Your task to perform on an android device: choose inbox layout in the gmail app Image 0: 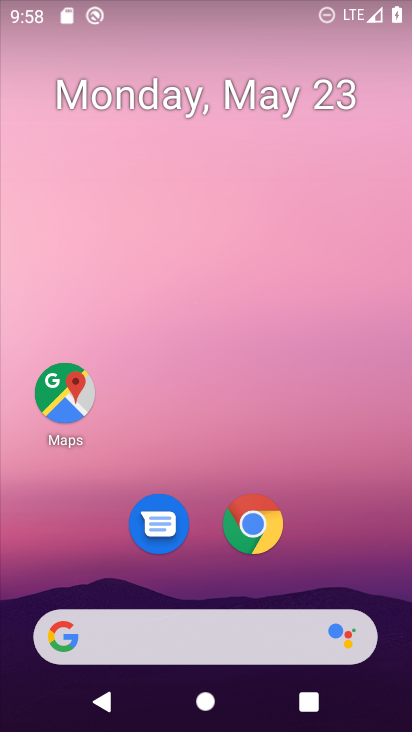
Step 0: drag from (215, 447) to (185, 51)
Your task to perform on an android device: choose inbox layout in the gmail app Image 1: 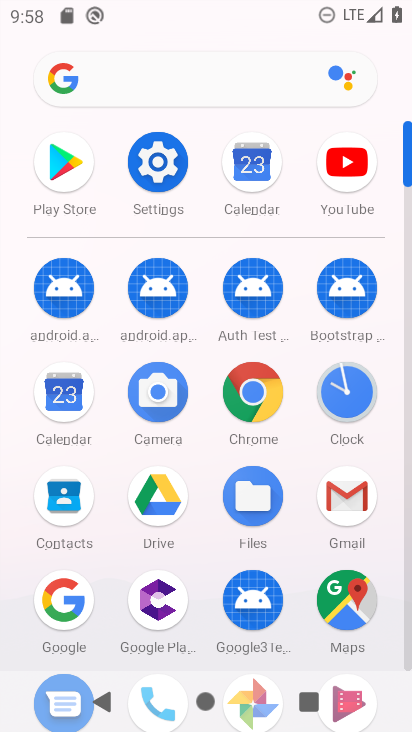
Step 1: click (330, 477)
Your task to perform on an android device: choose inbox layout in the gmail app Image 2: 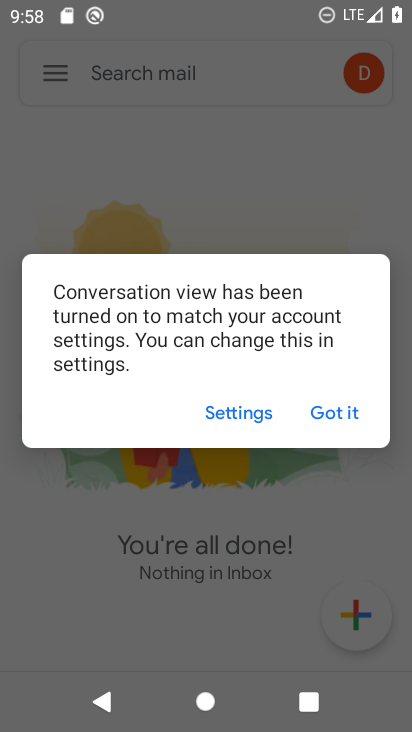
Step 2: click (317, 405)
Your task to perform on an android device: choose inbox layout in the gmail app Image 3: 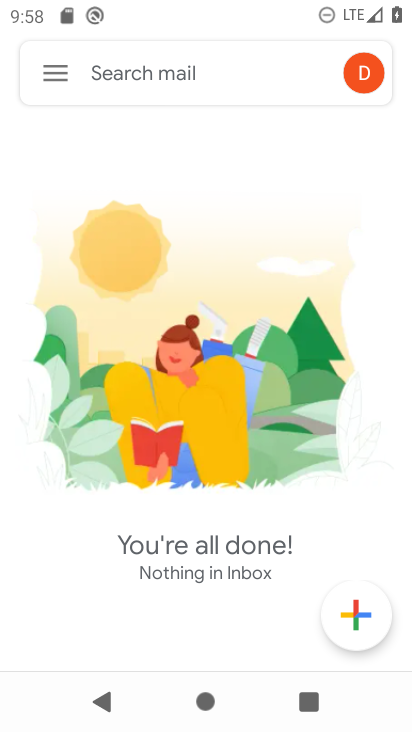
Step 3: click (59, 71)
Your task to perform on an android device: choose inbox layout in the gmail app Image 4: 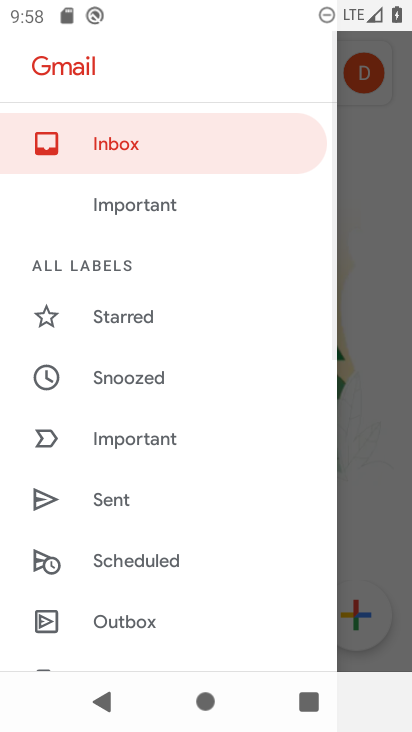
Step 4: drag from (148, 428) to (209, 44)
Your task to perform on an android device: choose inbox layout in the gmail app Image 5: 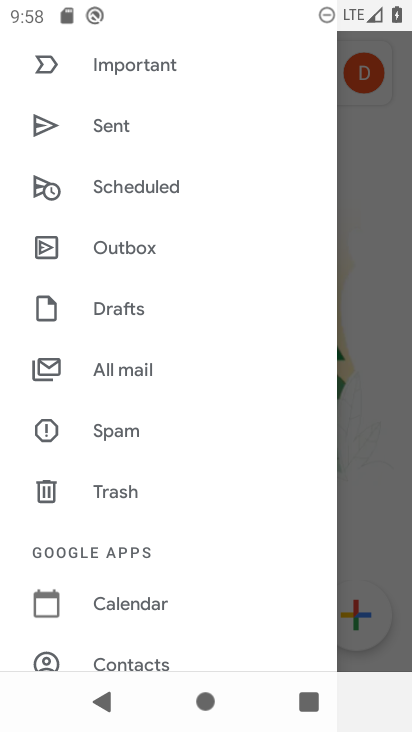
Step 5: drag from (193, 419) to (205, 134)
Your task to perform on an android device: choose inbox layout in the gmail app Image 6: 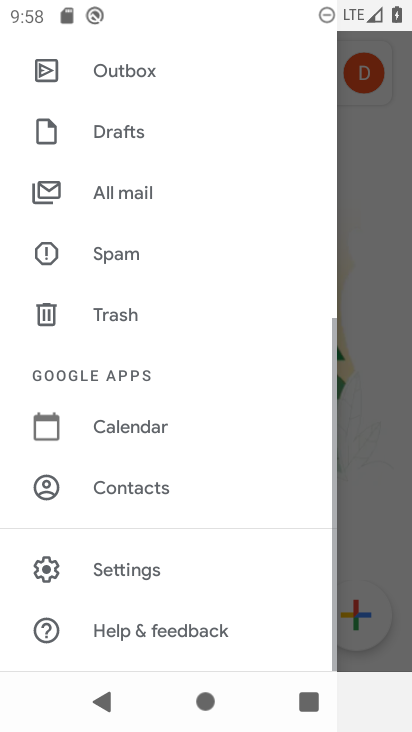
Step 6: click (135, 572)
Your task to perform on an android device: choose inbox layout in the gmail app Image 7: 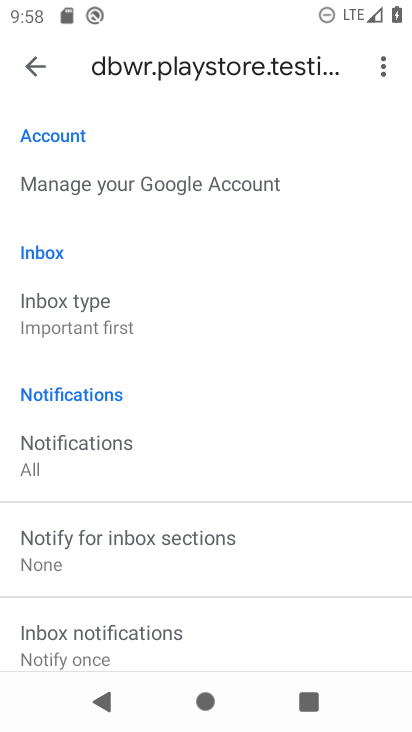
Step 7: click (95, 306)
Your task to perform on an android device: choose inbox layout in the gmail app Image 8: 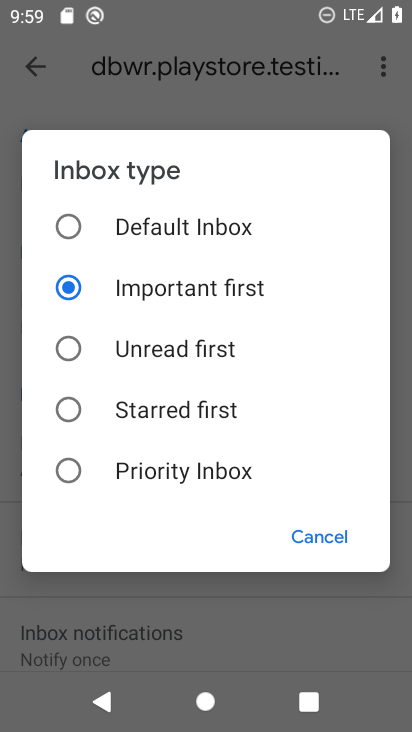
Step 8: click (100, 220)
Your task to perform on an android device: choose inbox layout in the gmail app Image 9: 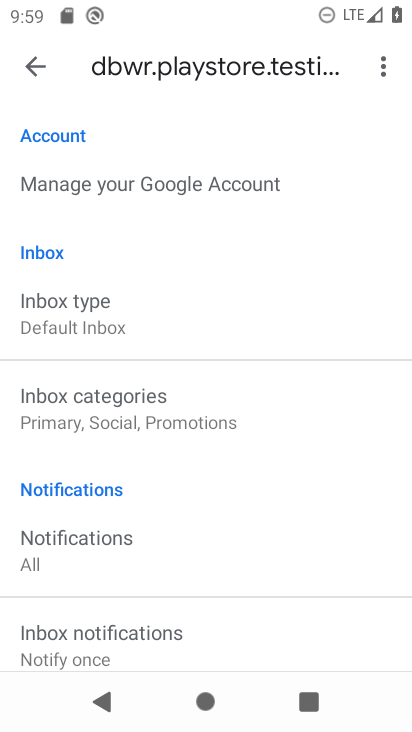
Step 9: task complete